Your task to perform on an android device: uninstall "Google Find My Device" Image 0: 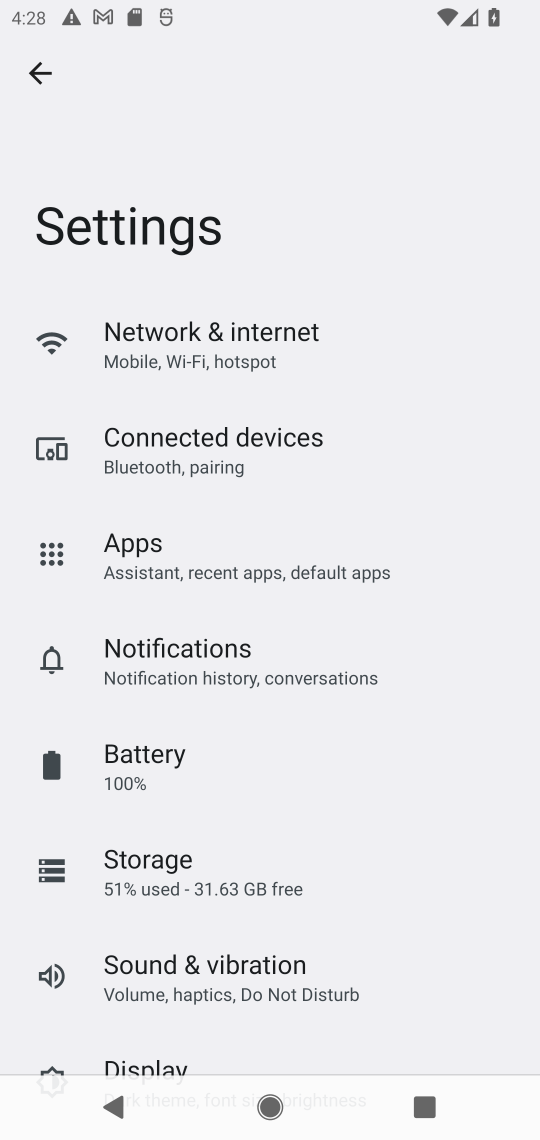
Step 0: press home button
Your task to perform on an android device: uninstall "Google Find My Device" Image 1: 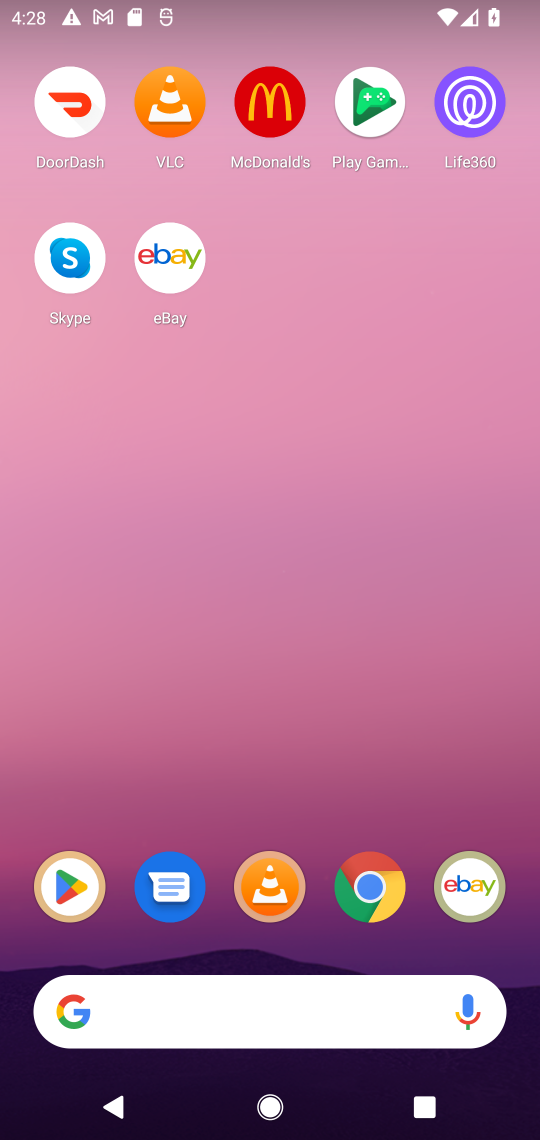
Step 1: click (76, 890)
Your task to perform on an android device: uninstall "Google Find My Device" Image 2: 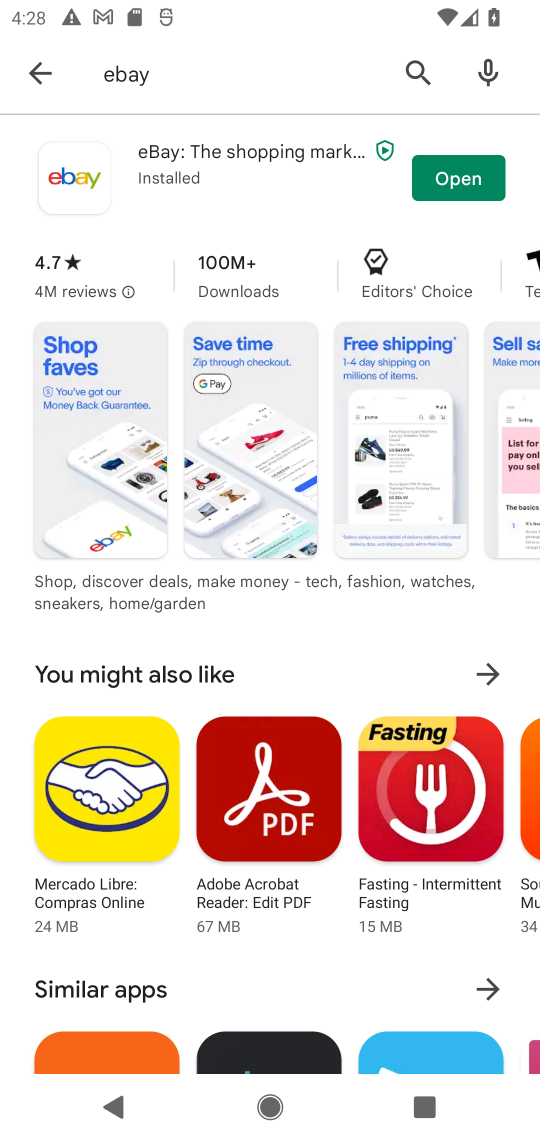
Step 2: click (197, 74)
Your task to perform on an android device: uninstall "Google Find My Device" Image 3: 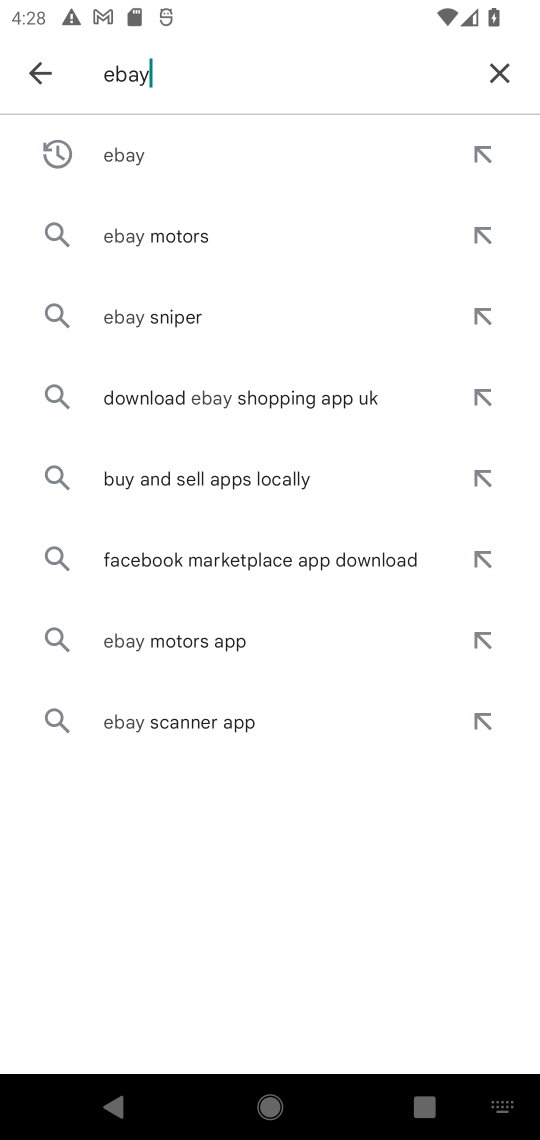
Step 3: click (482, 68)
Your task to perform on an android device: uninstall "Google Find My Device" Image 4: 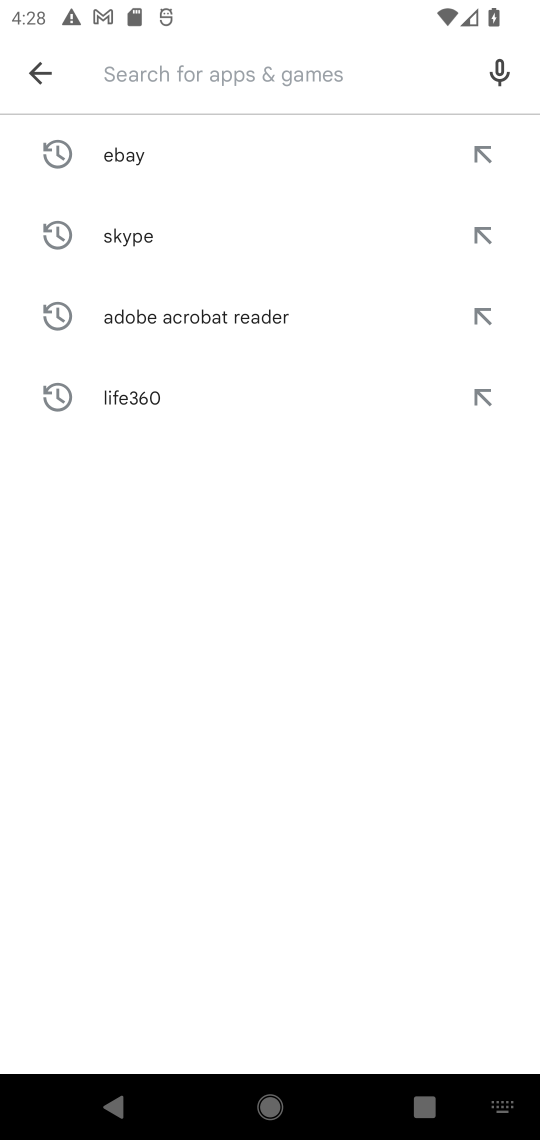
Step 4: type "Google Find My Devices"
Your task to perform on an android device: uninstall "Google Find My Device" Image 5: 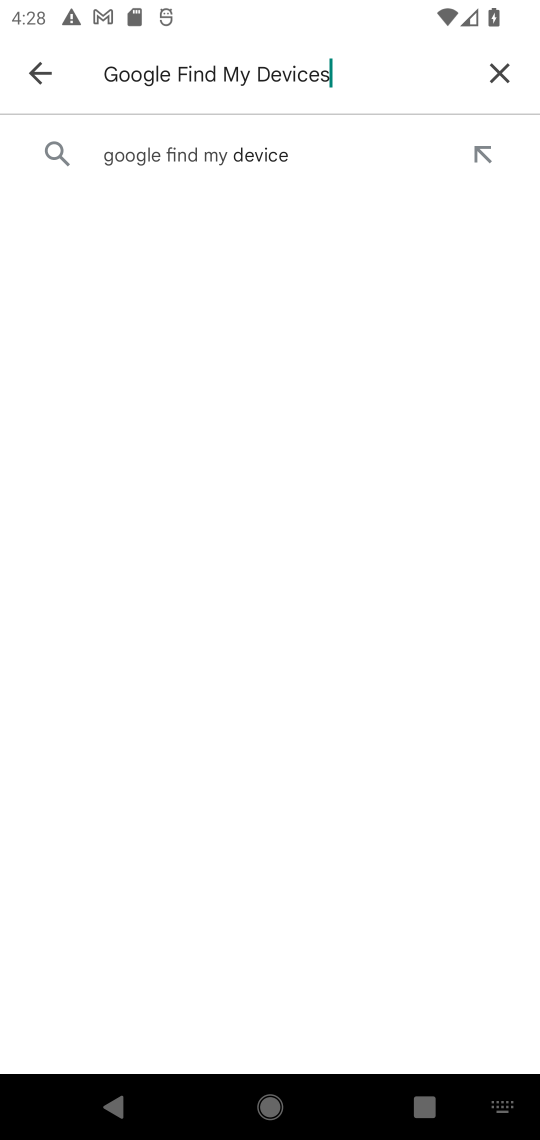
Step 5: click (212, 186)
Your task to perform on an android device: uninstall "Google Find My Device" Image 6: 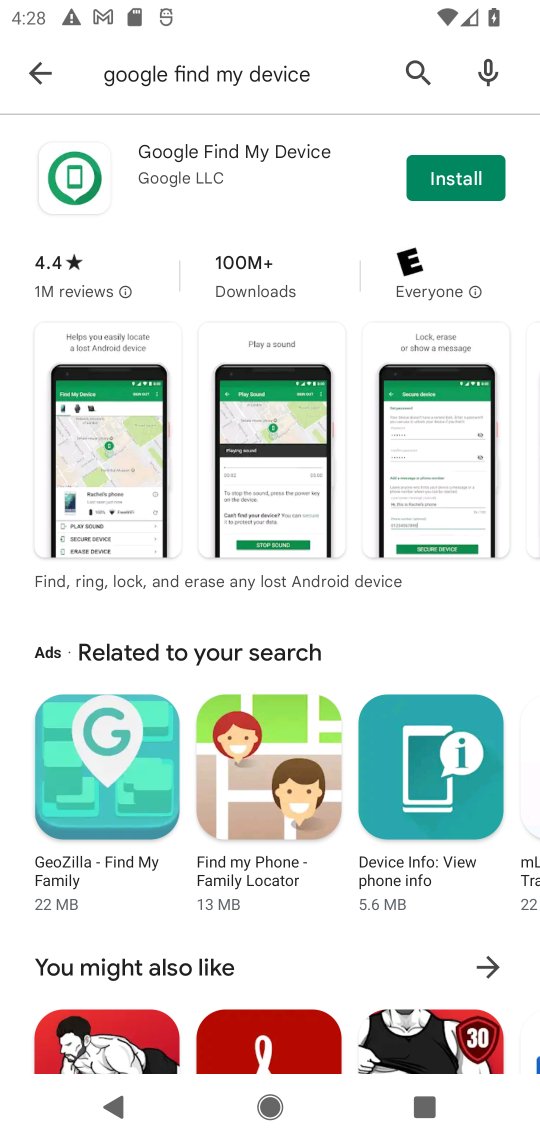
Step 6: task complete